Your task to perform on an android device: turn on location history Image 0: 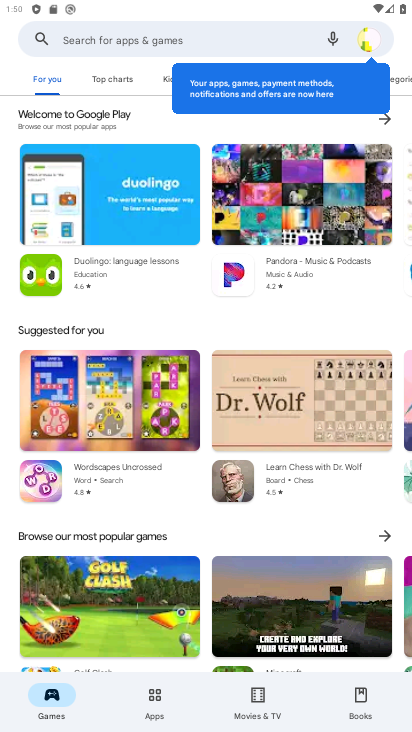
Step 0: press home button
Your task to perform on an android device: turn on location history Image 1: 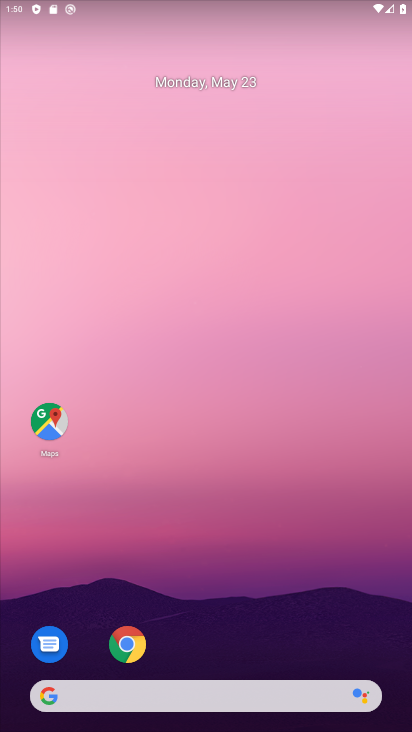
Step 1: drag from (254, 552) to (232, 52)
Your task to perform on an android device: turn on location history Image 2: 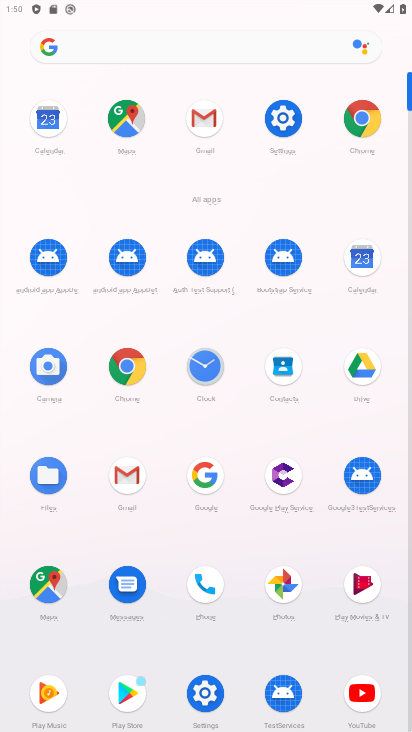
Step 2: click (279, 136)
Your task to perform on an android device: turn on location history Image 3: 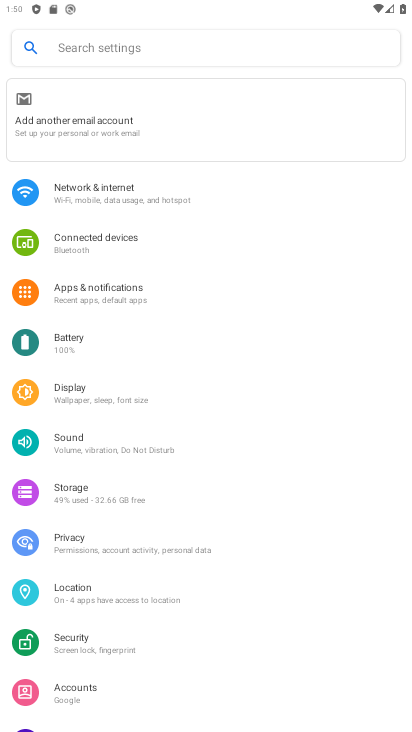
Step 3: click (137, 602)
Your task to perform on an android device: turn on location history Image 4: 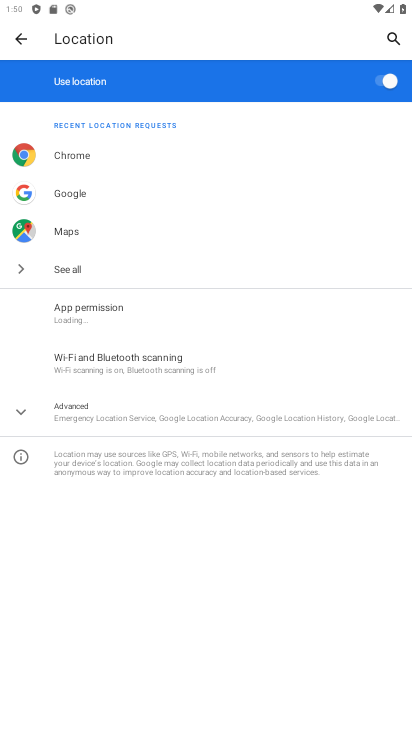
Step 4: click (62, 406)
Your task to perform on an android device: turn on location history Image 5: 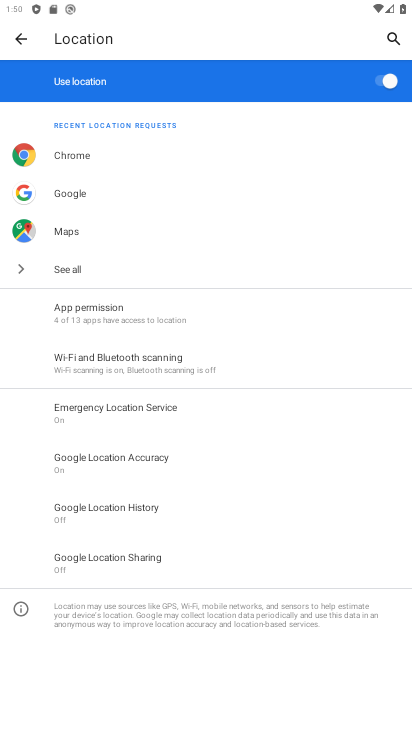
Step 5: click (136, 509)
Your task to perform on an android device: turn on location history Image 6: 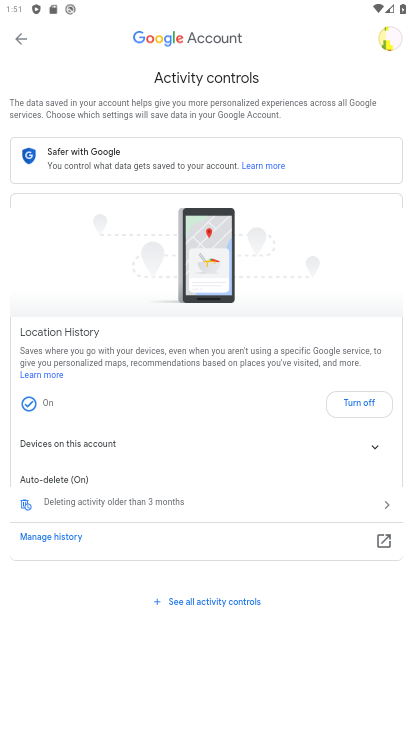
Step 6: task complete